Your task to perform on an android device: What's the weather going to be tomorrow? Image 0: 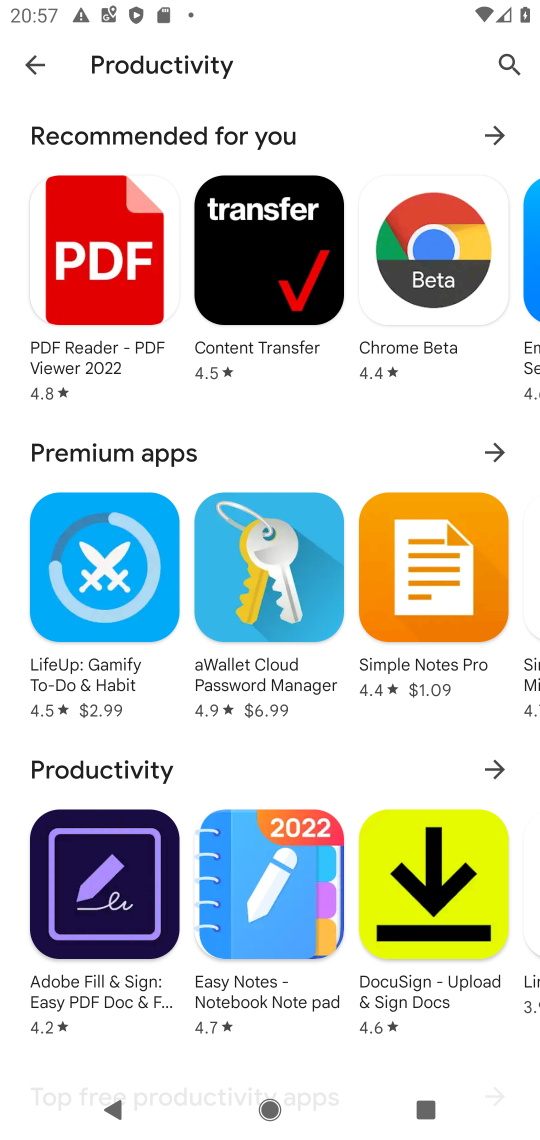
Step 0: press home button
Your task to perform on an android device: What's the weather going to be tomorrow? Image 1: 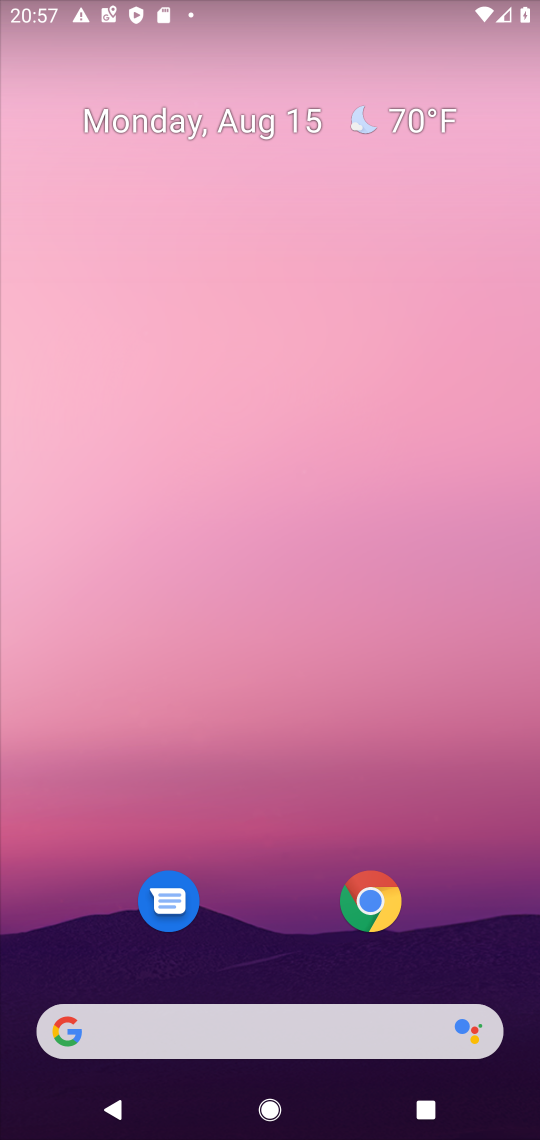
Step 1: drag from (300, 958) to (304, 9)
Your task to perform on an android device: What's the weather going to be tomorrow? Image 2: 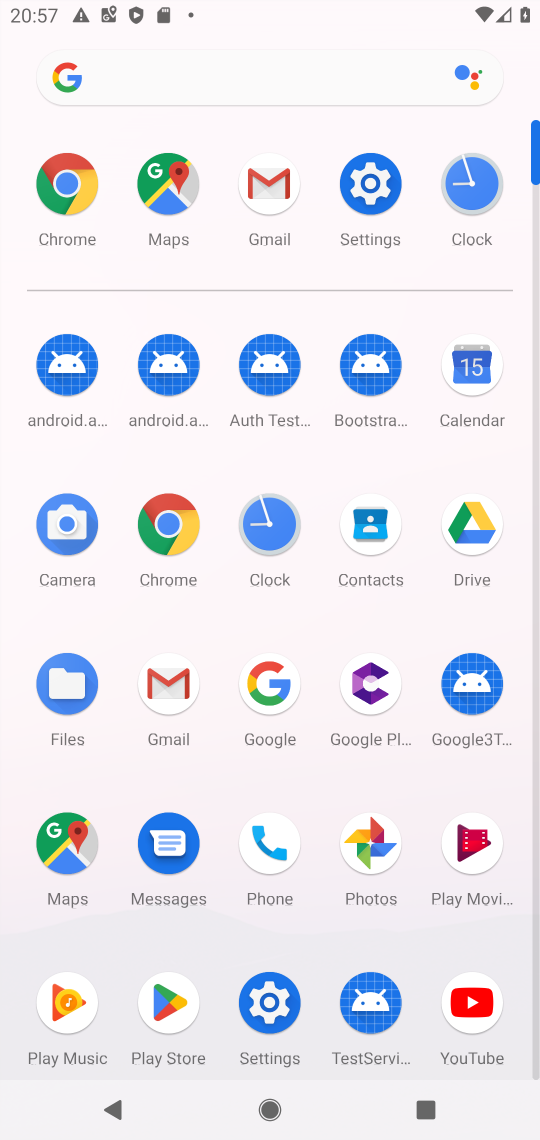
Step 2: click (220, 72)
Your task to perform on an android device: What's the weather going to be tomorrow? Image 3: 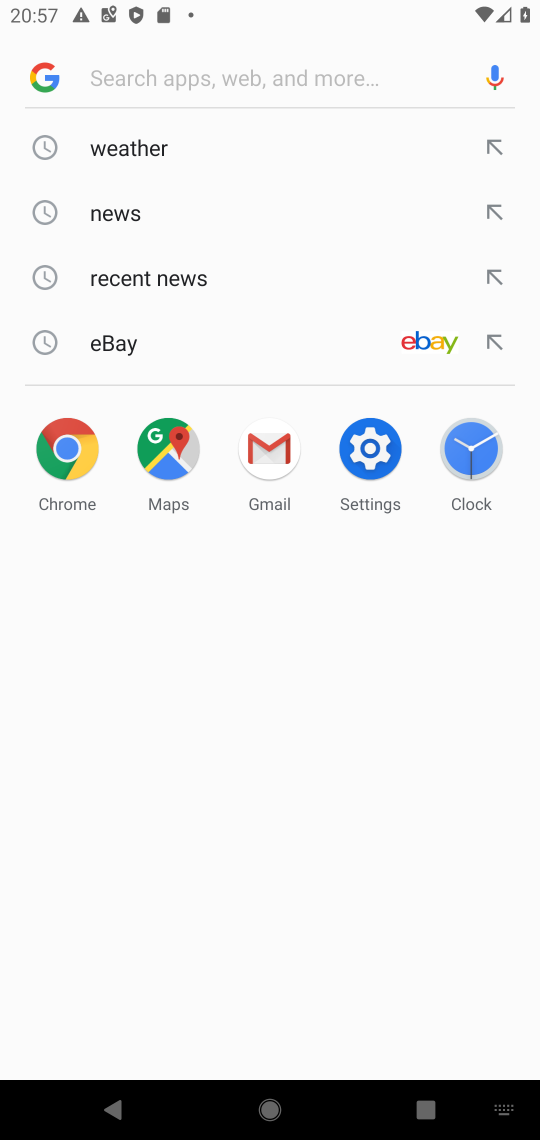
Step 3: click (151, 153)
Your task to perform on an android device: What's the weather going to be tomorrow? Image 4: 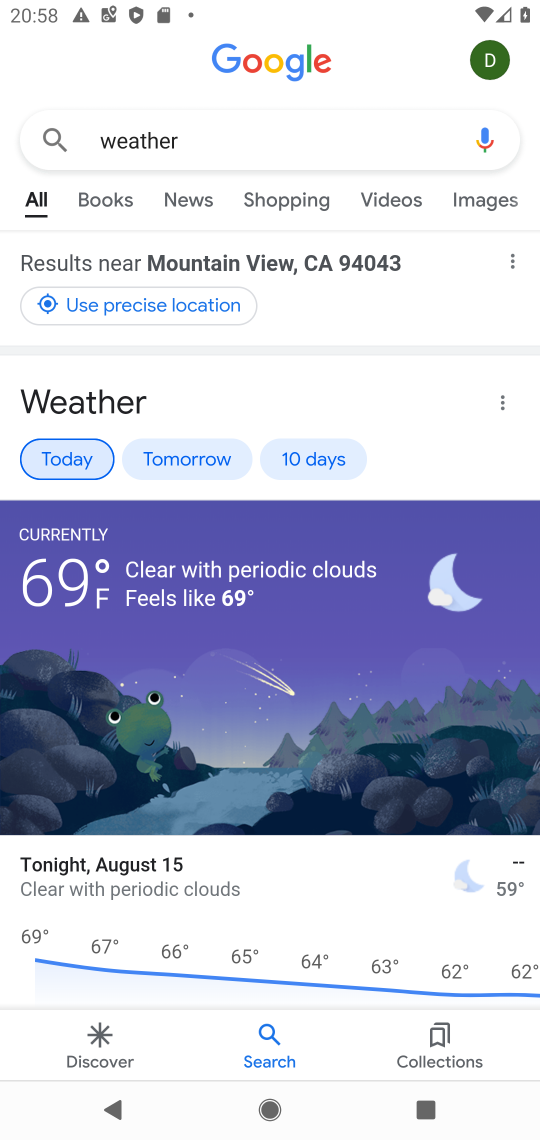
Step 4: click (192, 459)
Your task to perform on an android device: What's the weather going to be tomorrow? Image 5: 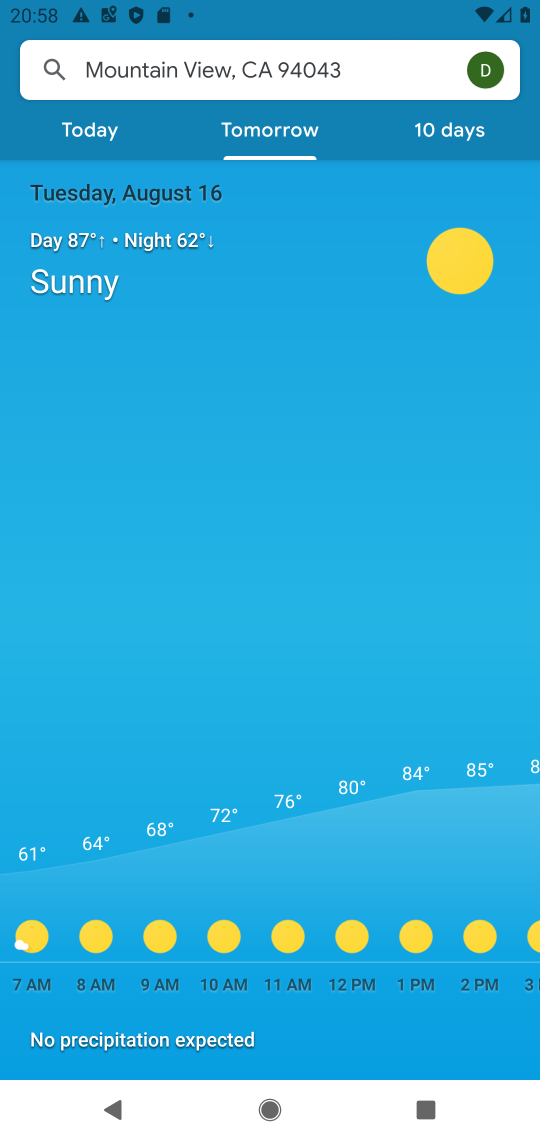
Step 5: task complete